Your task to perform on an android device: Go to Reddit.com Image 0: 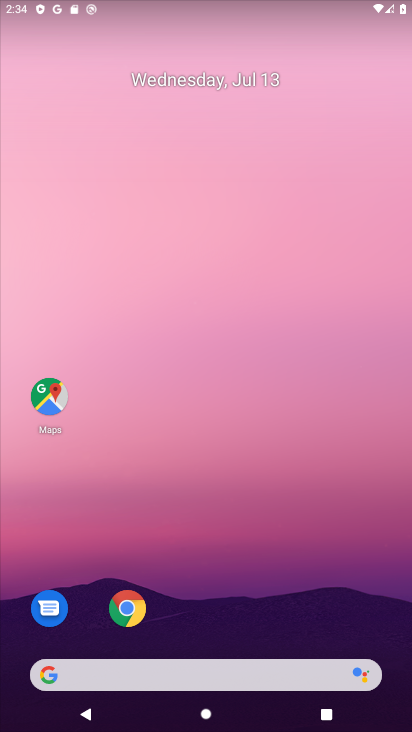
Step 0: click (199, 663)
Your task to perform on an android device: Go to Reddit.com Image 1: 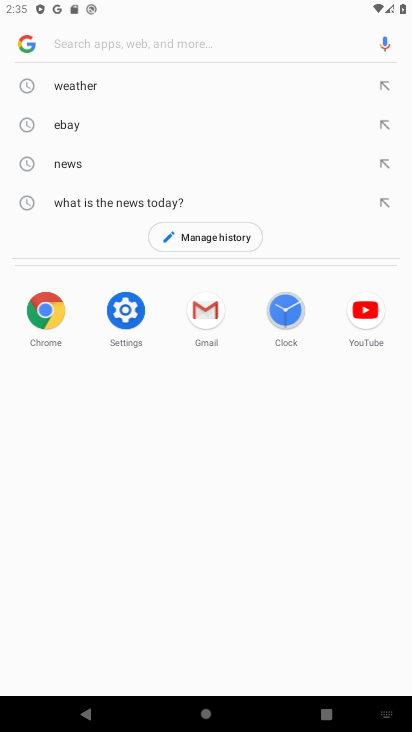
Step 1: type "reddit"
Your task to perform on an android device: Go to Reddit.com Image 2: 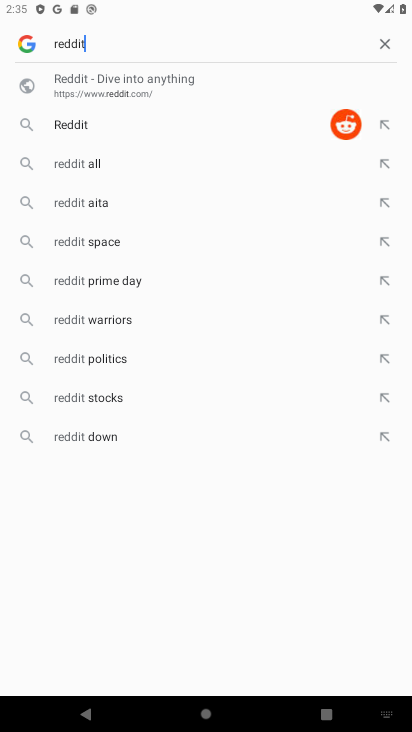
Step 2: click (322, 109)
Your task to perform on an android device: Go to Reddit.com Image 3: 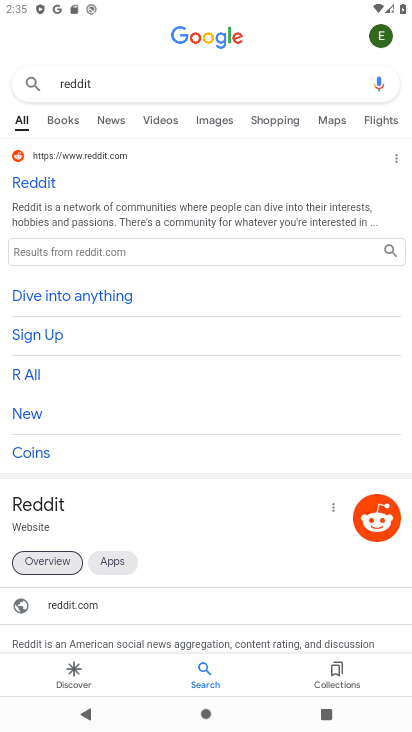
Step 3: click (31, 183)
Your task to perform on an android device: Go to Reddit.com Image 4: 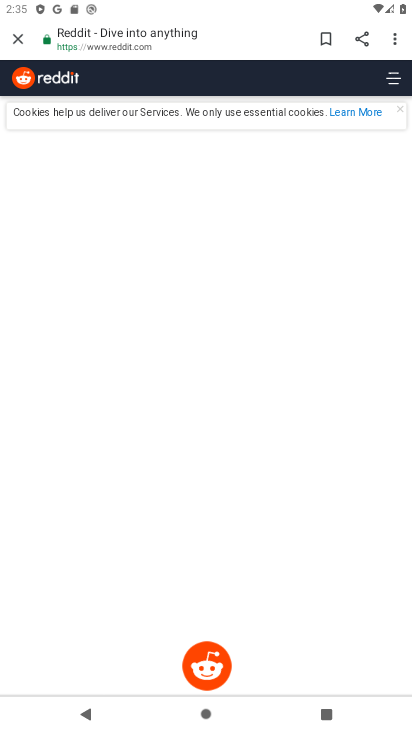
Step 4: task complete